Your task to perform on an android device: install app "Upside-Cash back on gas & food" Image 0: 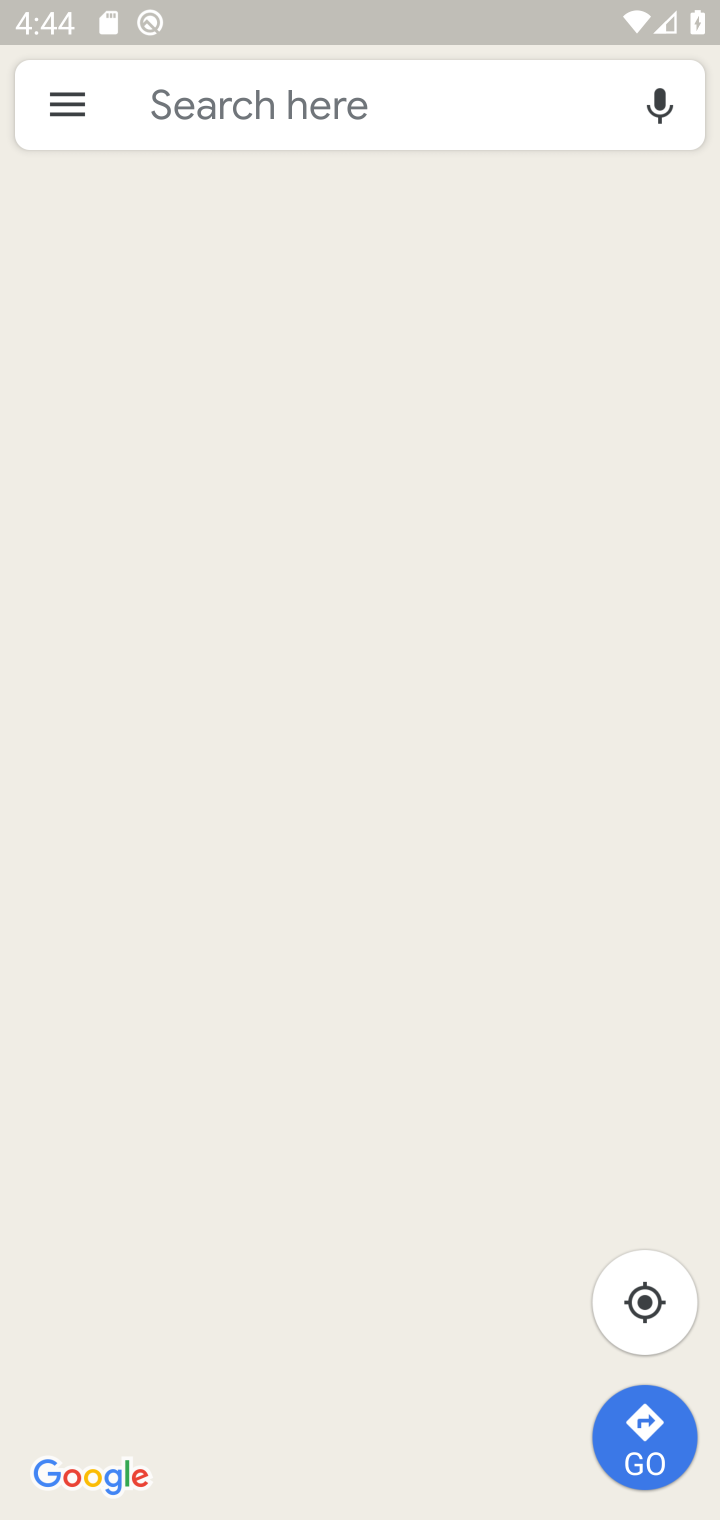
Step 0: press home button
Your task to perform on an android device: install app "Upside-Cash back on gas & food" Image 1: 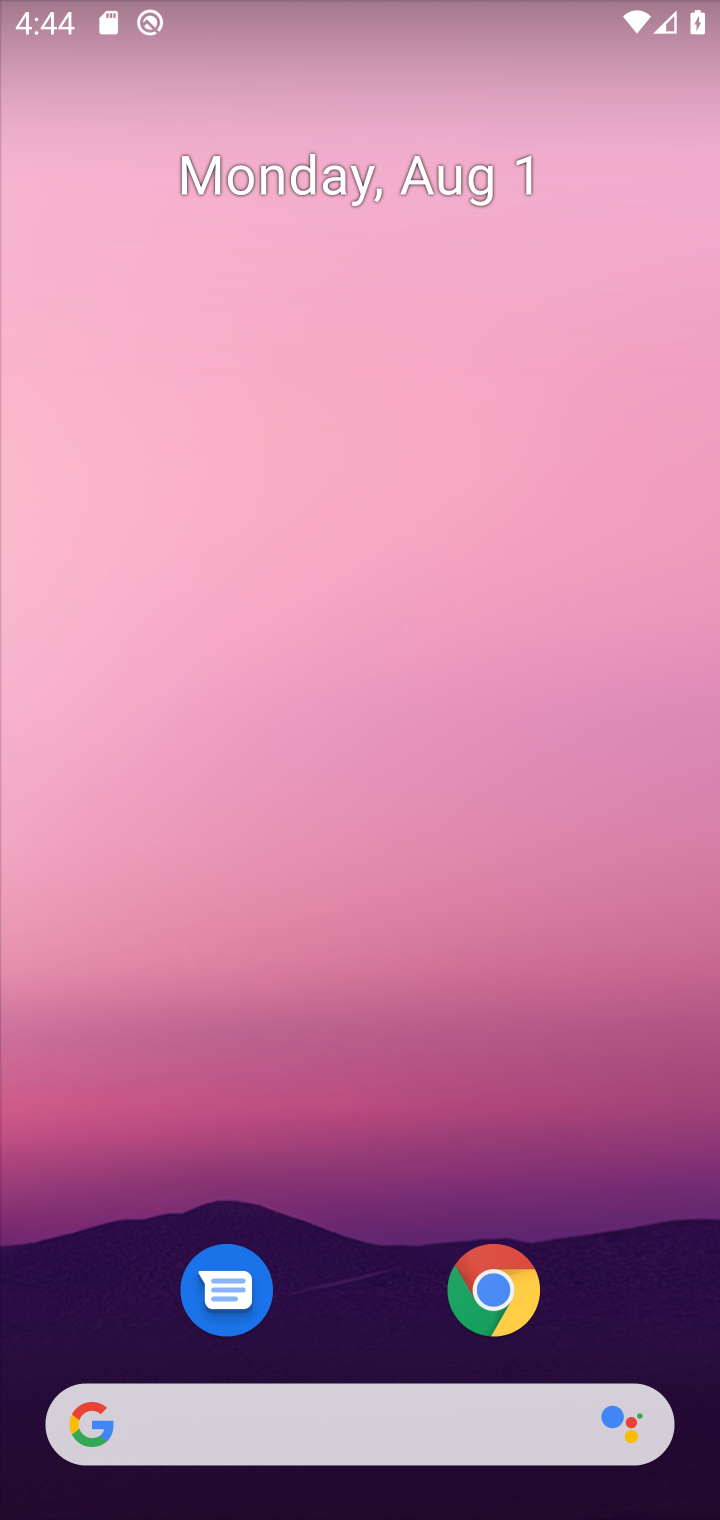
Step 1: drag from (477, 1423) to (495, 91)
Your task to perform on an android device: install app "Upside-Cash back on gas & food" Image 2: 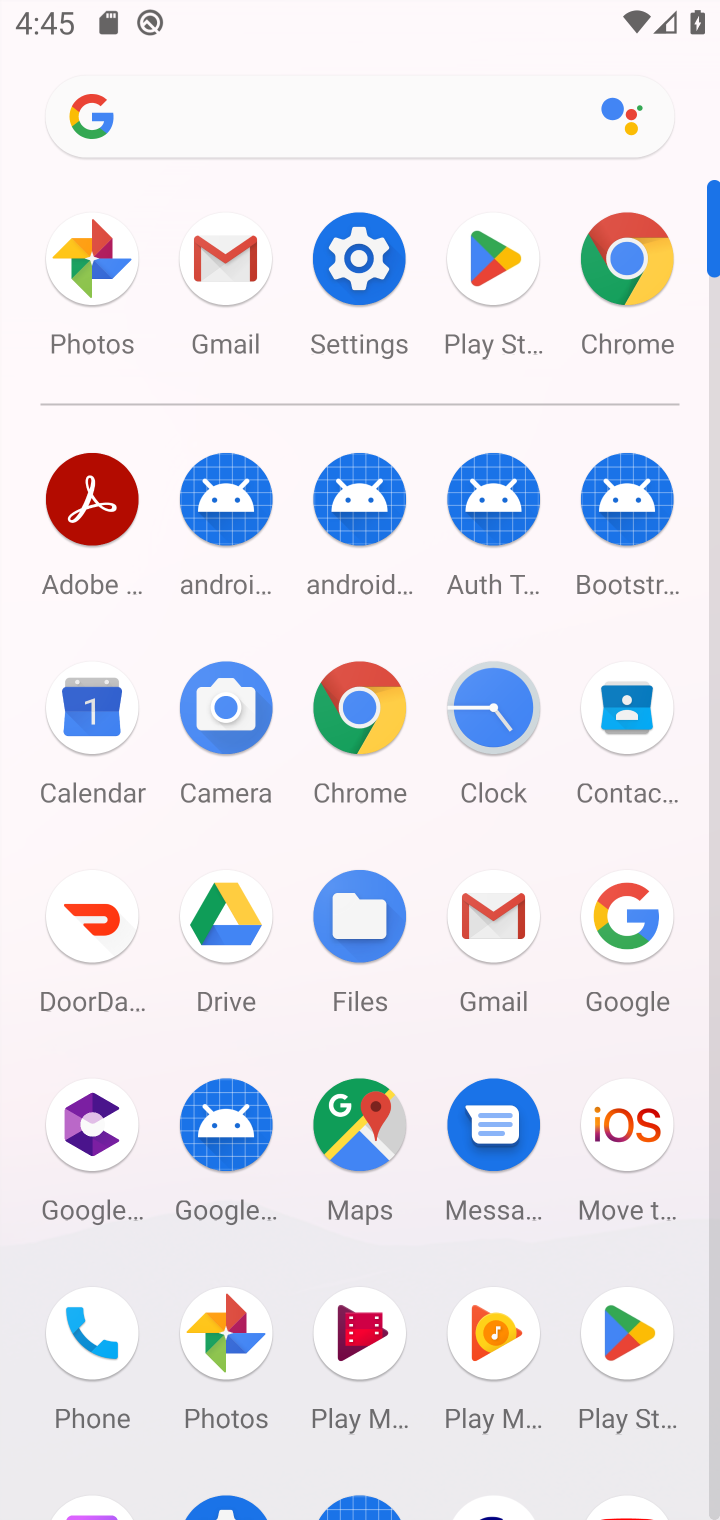
Step 2: click (473, 279)
Your task to perform on an android device: install app "Upside-Cash back on gas & food" Image 3: 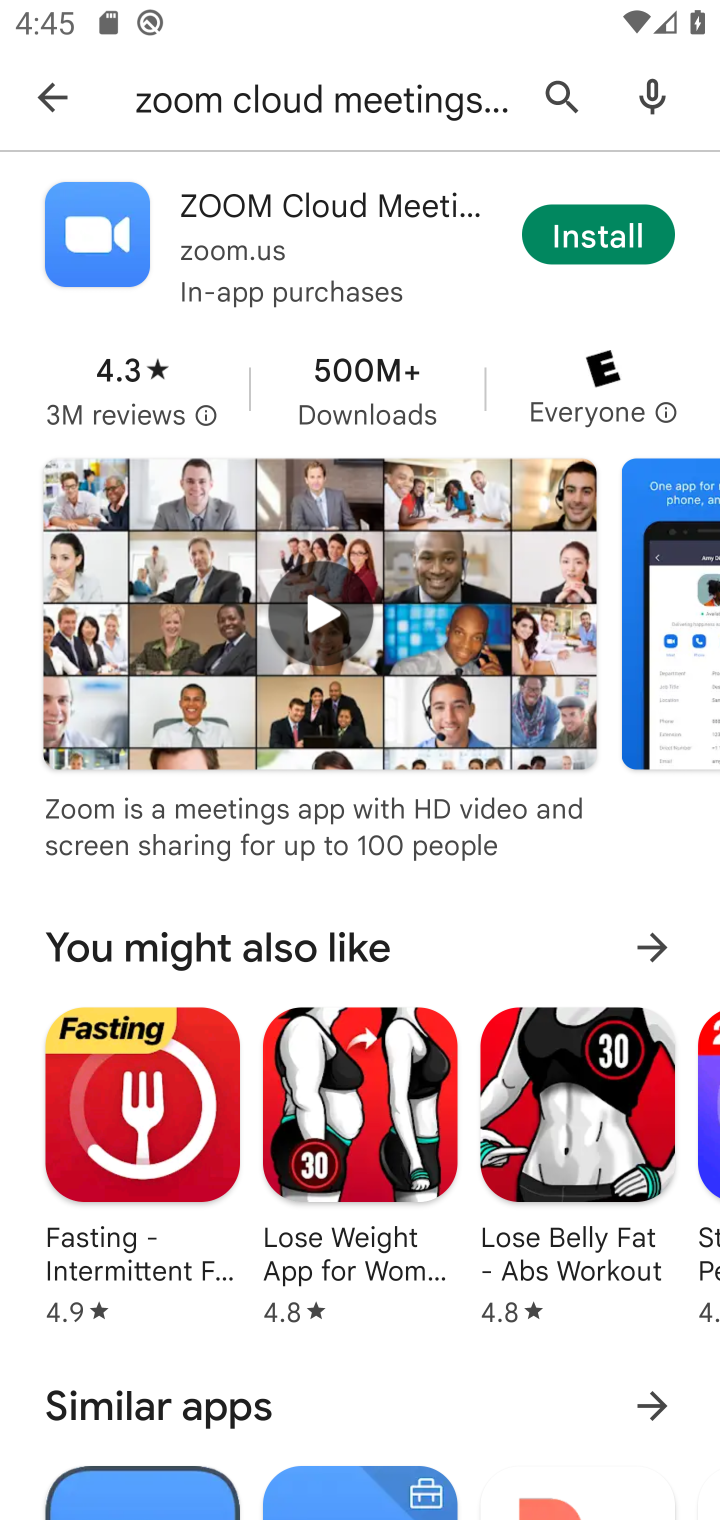
Step 3: click (567, 82)
Your task to perform on an android device: install app "Upside-Cash back on gas & food" Image 4: 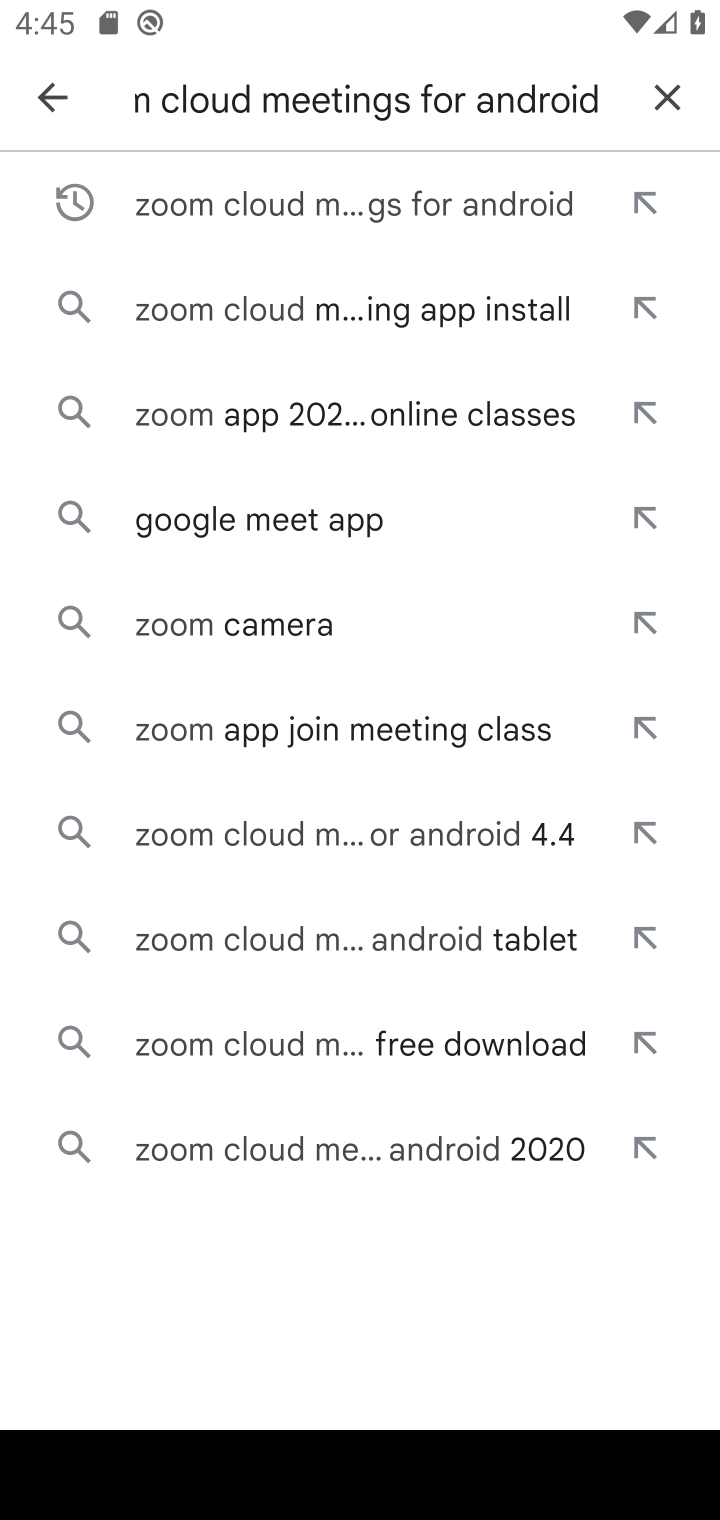
Step 4: click (682, 92)
Your task to perform on an android device: install app "Upside-Cash back on gas & food" Image 5: 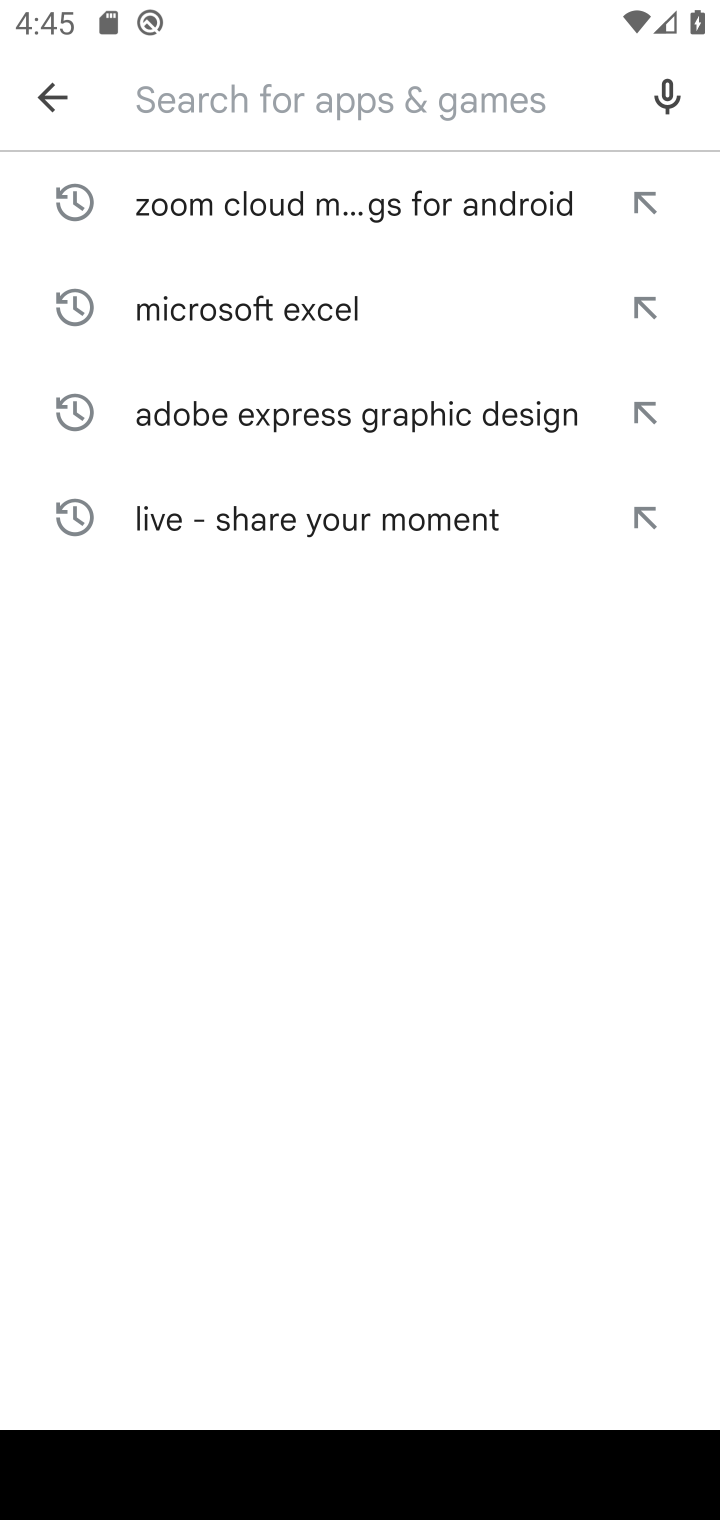
Step 5: click (278, 102)
Your task to perform on an android device: install app "Upside-Cash back on gas & food" Image 6: 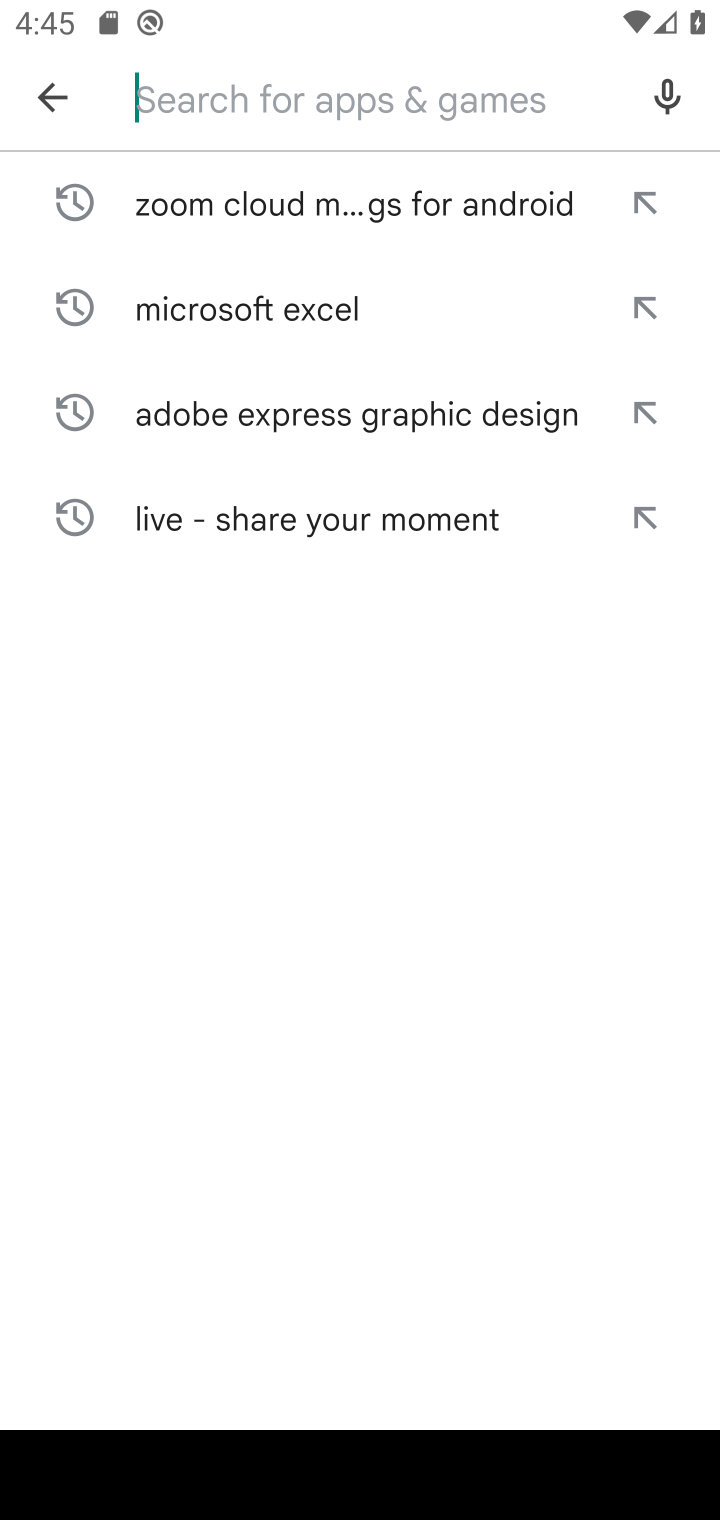
Step 6: type "upside-cashback on gas & food"
Your task to perform on an android device: install app "Upside-Cash back on gas & food" Image 7: 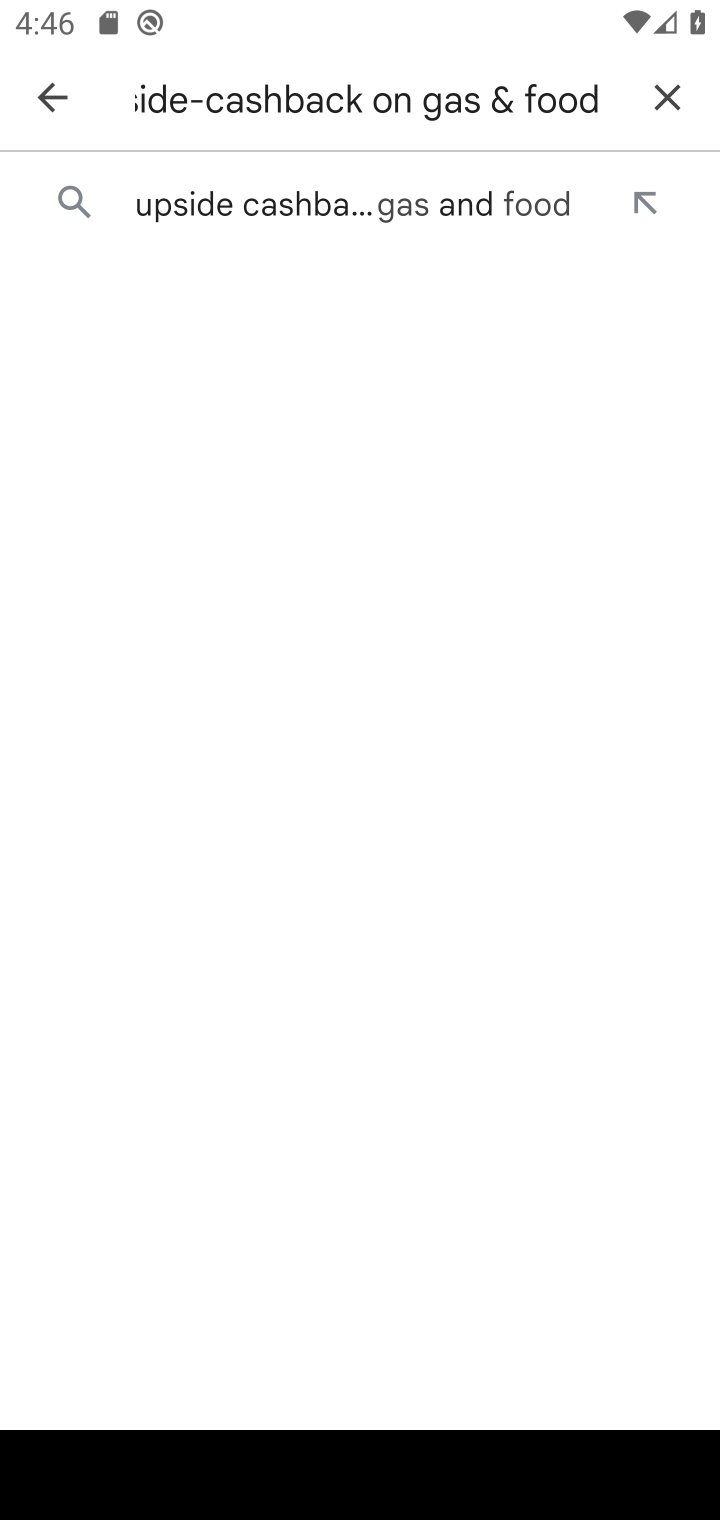
Step 7: click (448, 218)
Your task to perform on an android device: install app "Upside-Cash back on gas & food" Image 8: 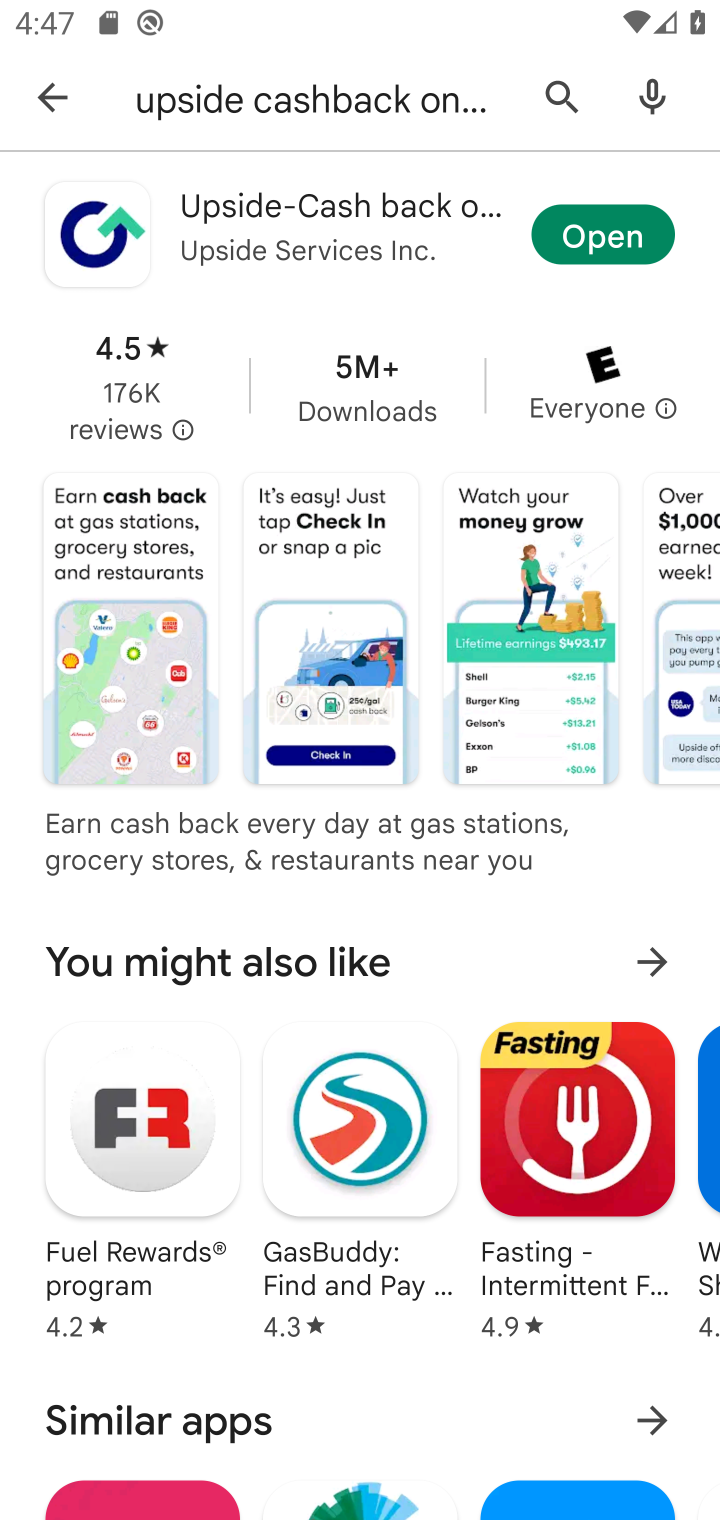
Step 8: task complete